Your task to perform on an android device: add a contact in the contacts app Image 0: 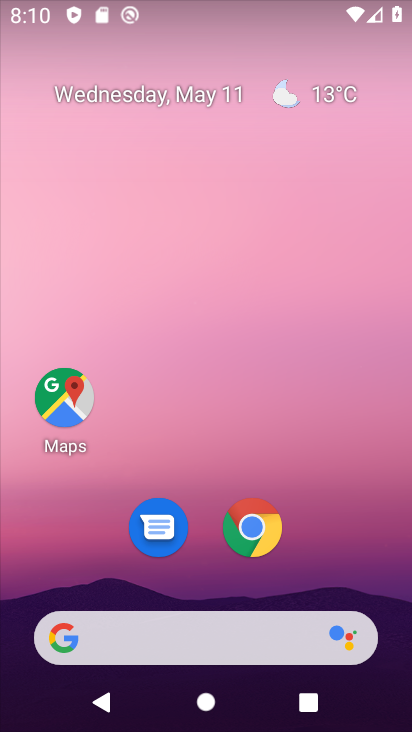
Step 0: drag from (163, 610) to (250, 118)
Your task to perform on an android device: add a contact in the contacts app Image 1: 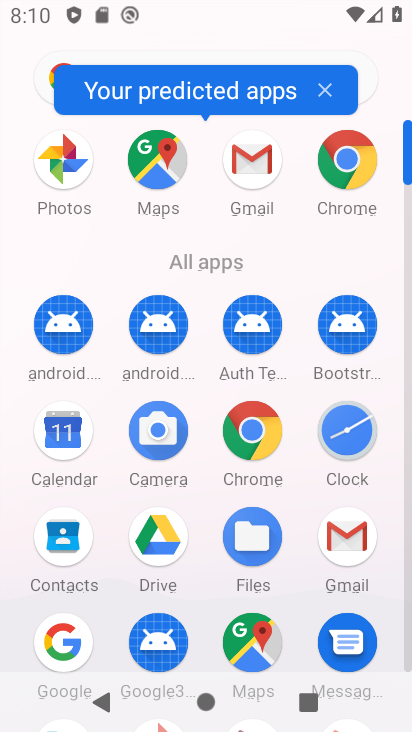
Step 1: drag from (115, 633) to (158, 412)
Your task to perform on an android device: add a contact in the contacts app Image 2: 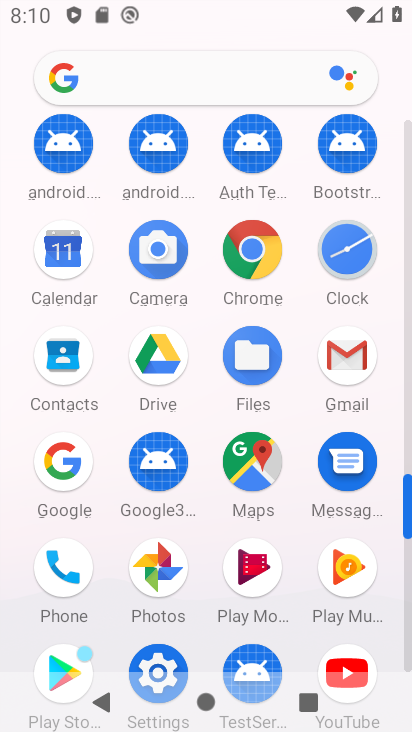
Step 2: click (68, 354)
Your task to perform on an android device: add a contact in the contacts app Image 3: 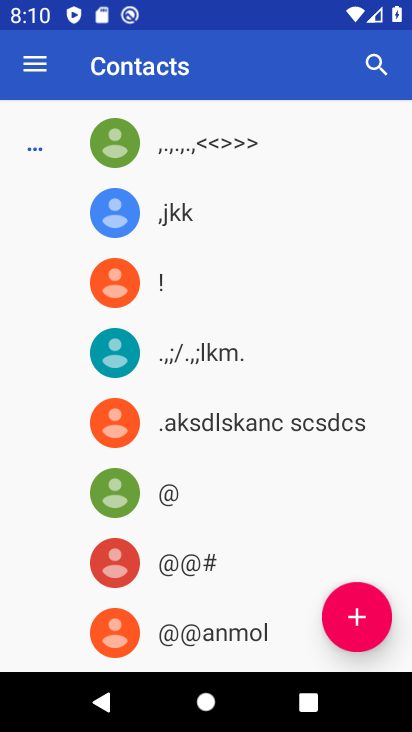
Step 3: click (370, 625)
Your task to perform on an android device: add a contact in the contacts app Image 4: 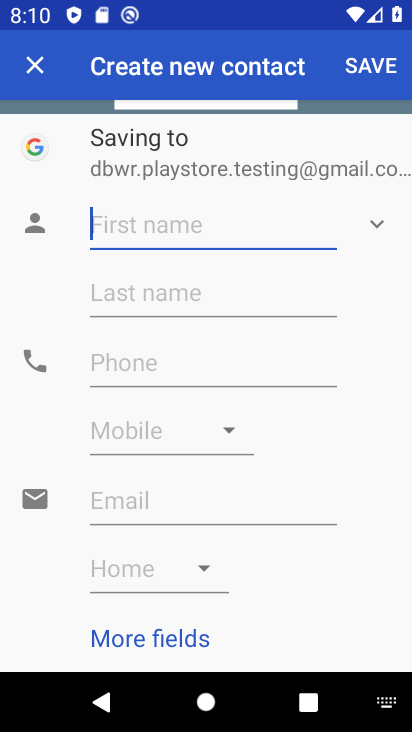
Step 4: type "cvcvcvcvc"
Your task to perform on an android device: add a contact in the contacts app Image 5: 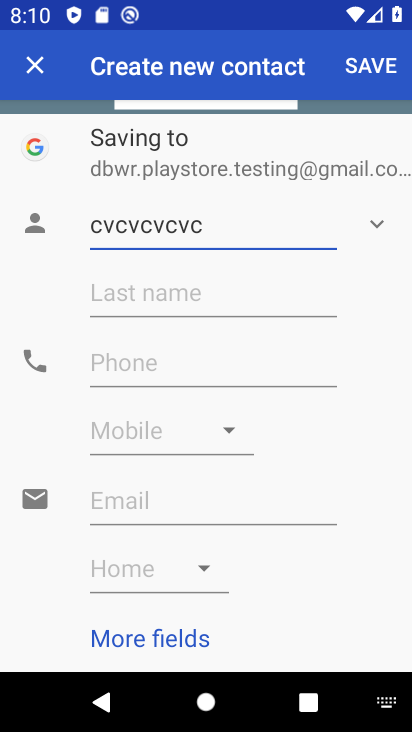
Step 5: click (136, 375)
Your task to perform on an android device: add a contact in the contacts app Image 6: 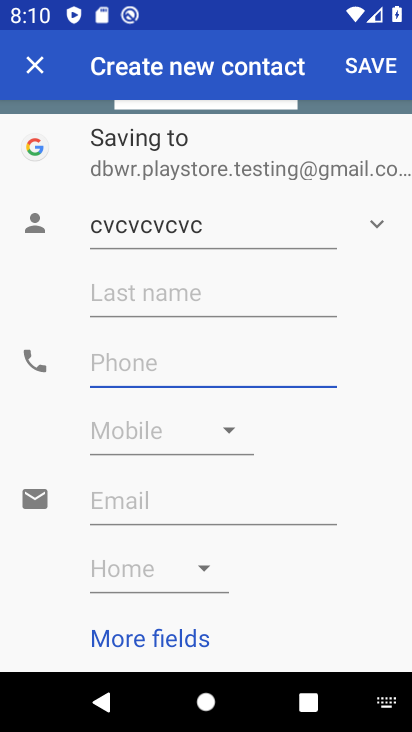
Step 6: type "989898989"
Your task to perform on an android device: add a contact in the contacts app Image 7: 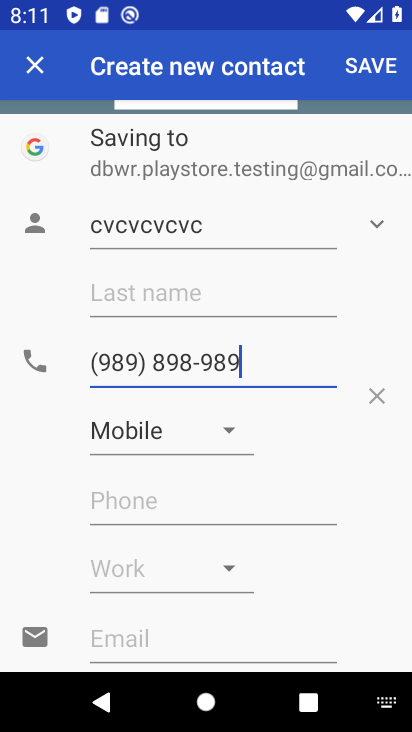
Step 7: type "1"
Your task to perform on an android device: add a contact in the contacts app Image 8: 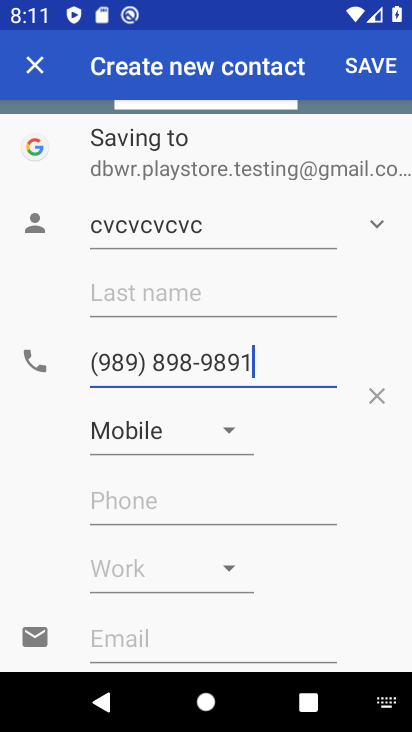
Step 8: click (380, 63)
Your task to perform on an android device: add a contact in the contacts app Image 9: 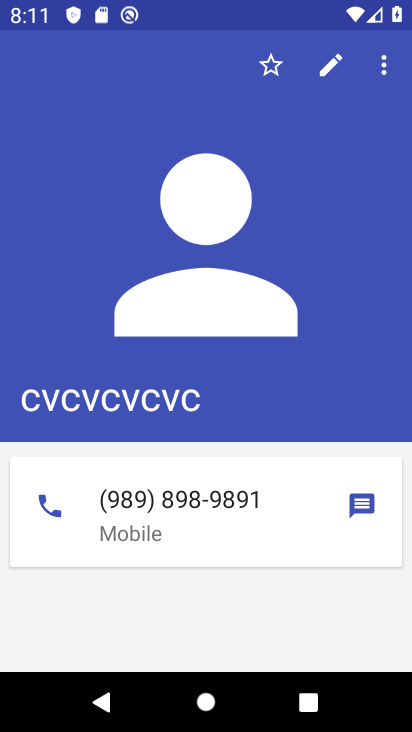
Step 9: task complete